Your task to perform on an android device: turn on the 24-hour format for clock Image 0: 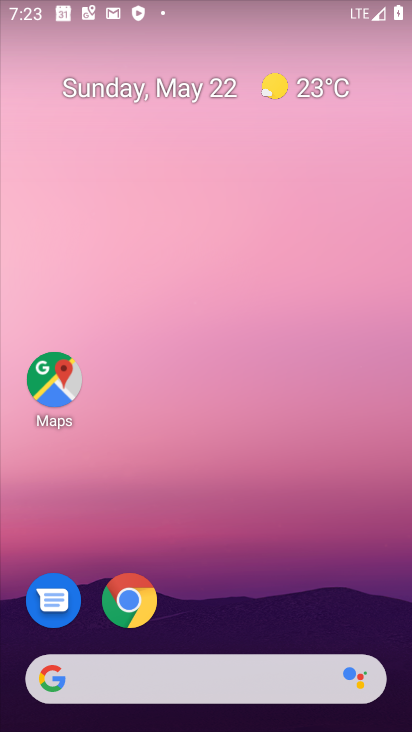
Step 0: drag from (356, 616) to (240, 56)
Your task to perform on an android device: turn on the 24-hour format for clock Image 1: 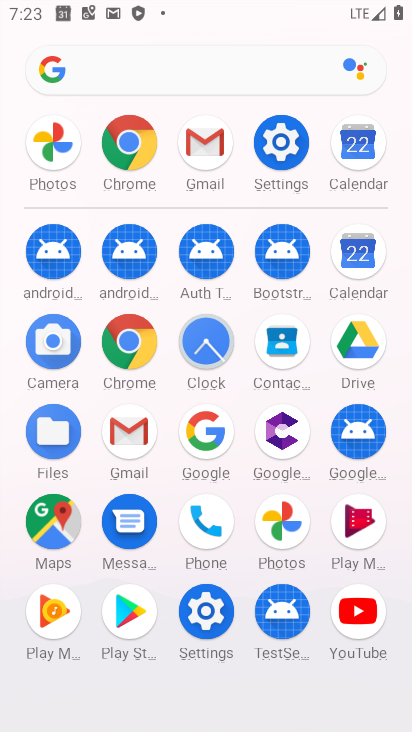
Step 1: click (219, 336)
Your task to perform on an android device: turn on the 24-hour format for clock Image 2: 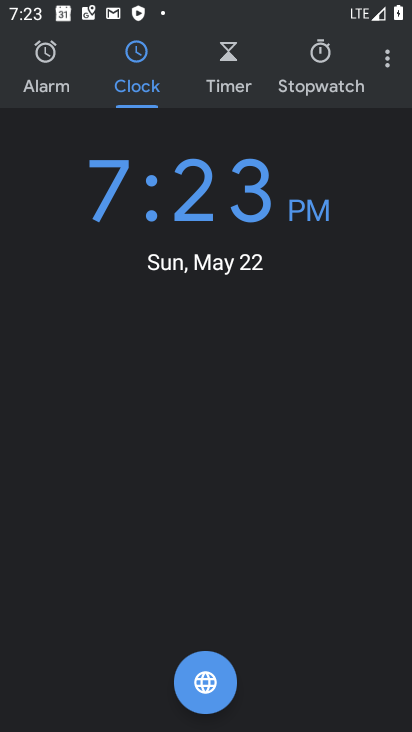
Step 2: click (385, 57)
Your task to perform on an android device: turn on the 24-hour format for clock Image 3: 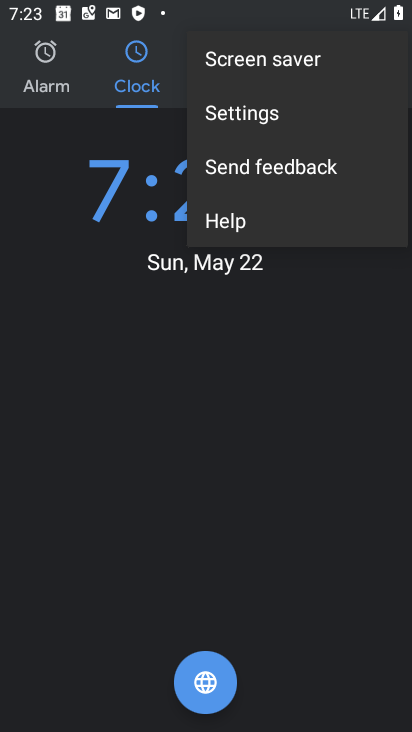
Step 3: click (275, 113)
Your task to perform on an android device: turn on the 24-hour format for clock Image 4: 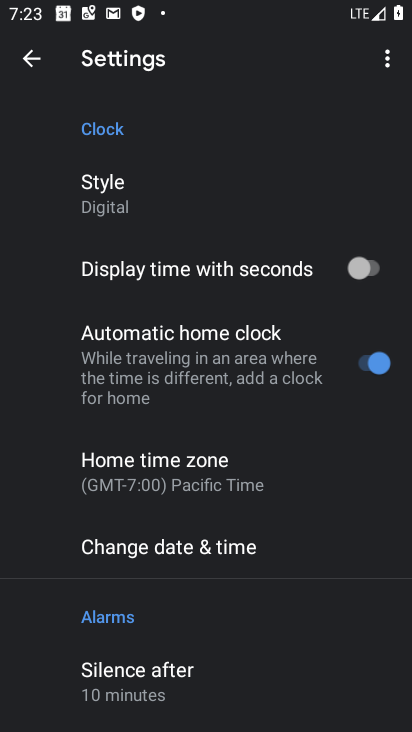
Step 4: click (183, 547)
Your task to perform on an android device: turn on the 24-hour format for clock Image 5: 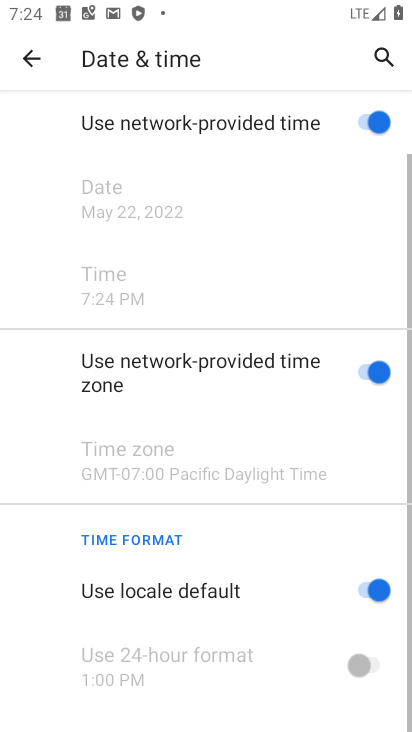
Step 5: task complete